Your task to perform on an android device: Open Chrome and go to settings Image 0: 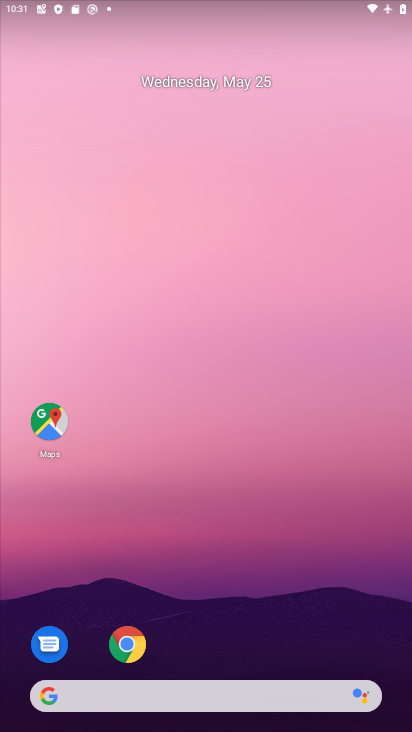
Step 0: click (128, 647)
Your task to perform on an android device: Open Chrome and go to settings Image 1: 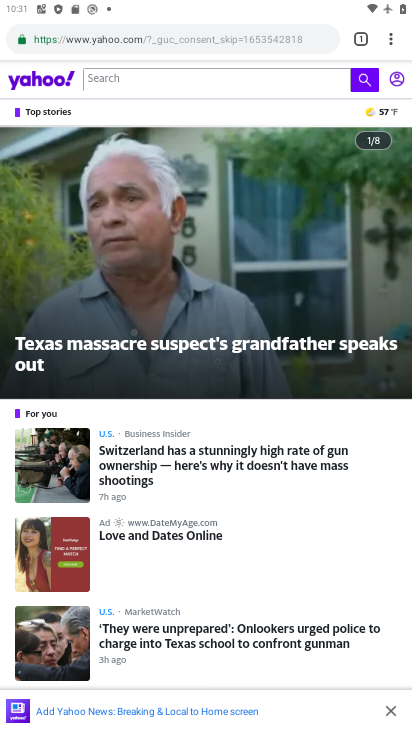
Step 1: click (386, 38)
Your task to perform on an android device: Open Chrome and go to settings Image 2: 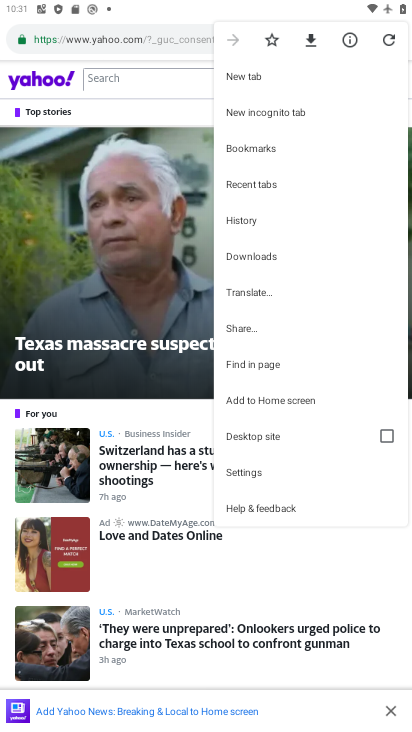
Step 2: click (277, 482)
Your task to perform on an android device: Open Chrome and go to settings Image 3: 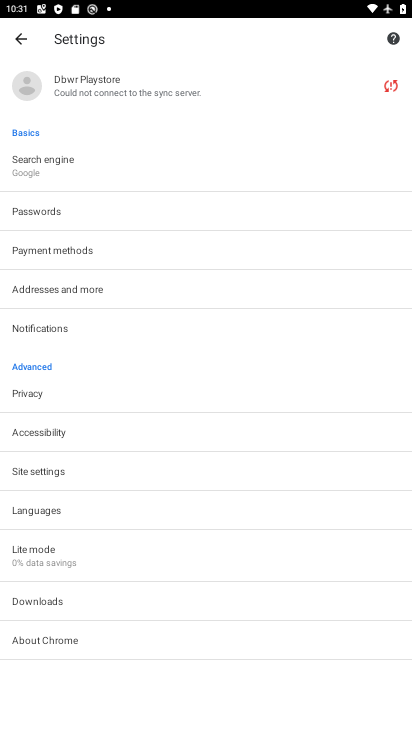
Step 3: task complete